Your task to perform on an android device: Go to settings Image 0: 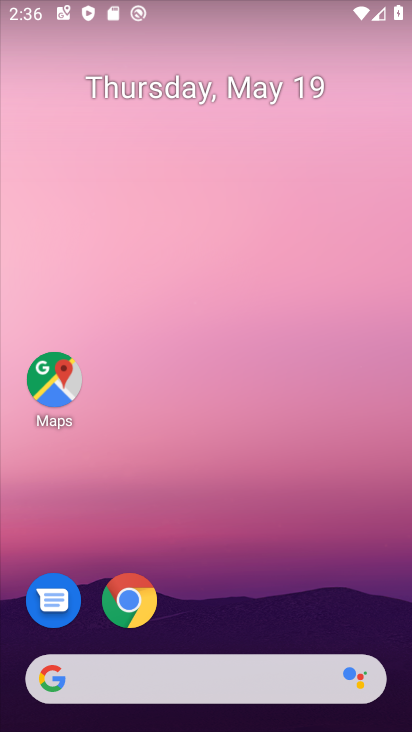
Step 0: drag from (398, 625) to (318, 73)
Your task to perform on an android device: Go to settings Image 1: 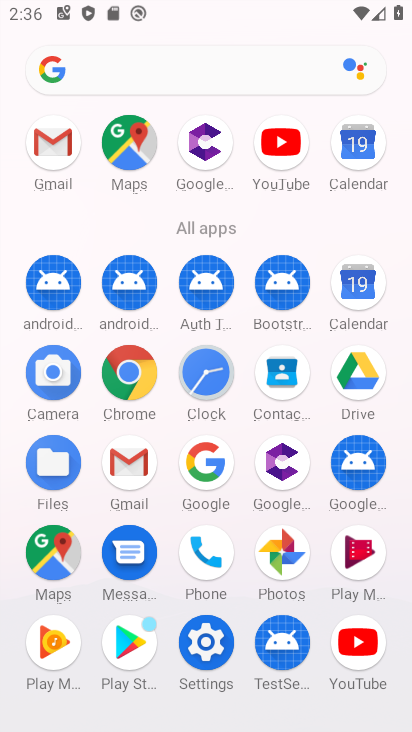
Step 1: click (206, 642)
Your task to perform on an android device: Go to settings Image 2: 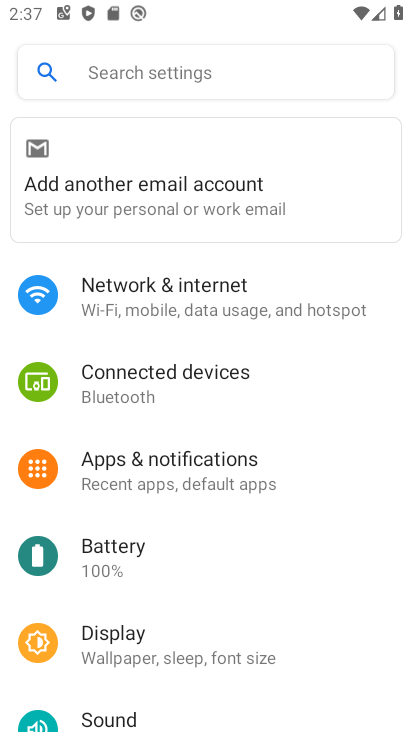
Step 2: task complete